Your task to perform on an android device: toggle airplane mode Image 0: 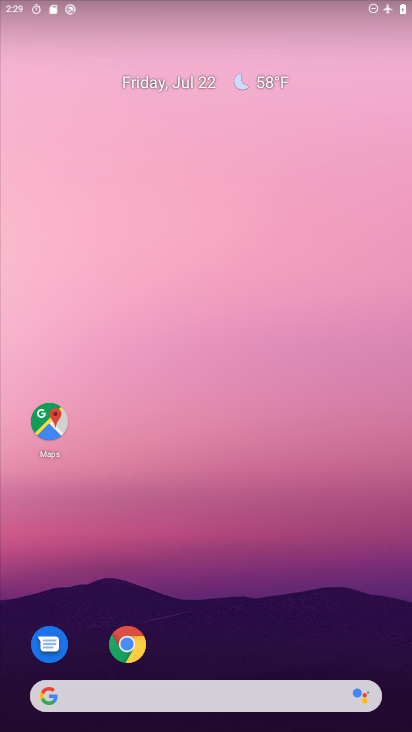
Step 0: drag from (253, 661) to (279, 206)
Your task to perform on an android device: toggle airplane mode Image 1: 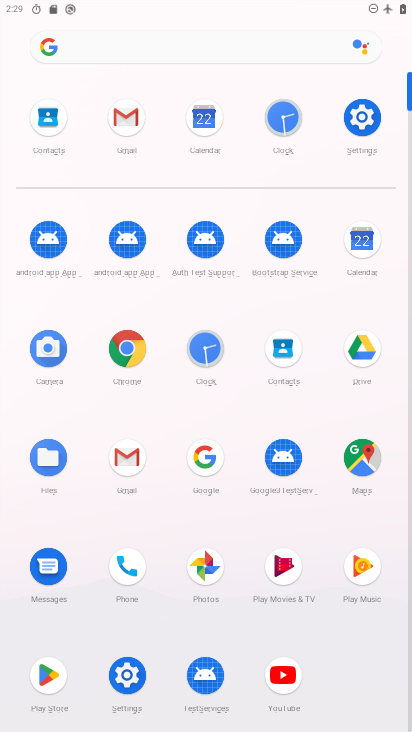
Step 1: click (359, 140)
Your task to perform on an android device: toggle airplane mode Image 2: 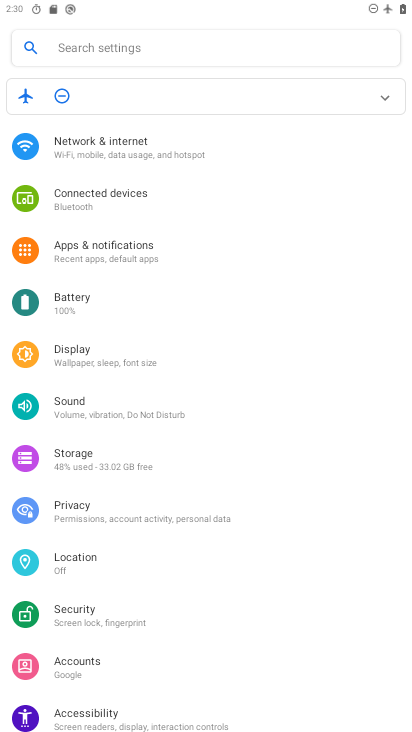
Step 2: click (130, 159)
Your task to perform on an android device: toggle airplane mode Image 3: 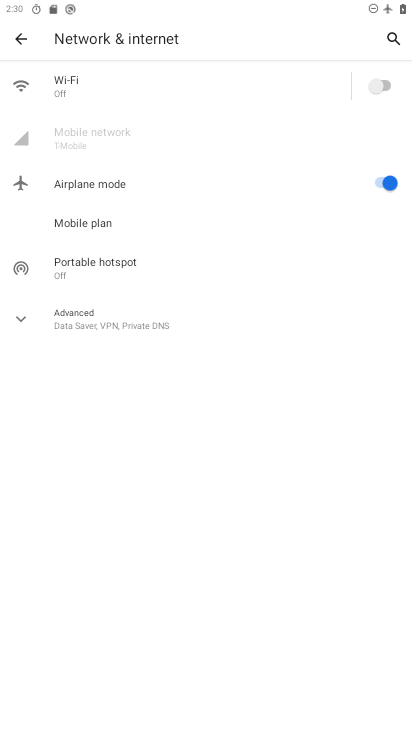
Step 3: click (375, 178)
Your task to perform on an android device: toggle airplane mode Image 4: 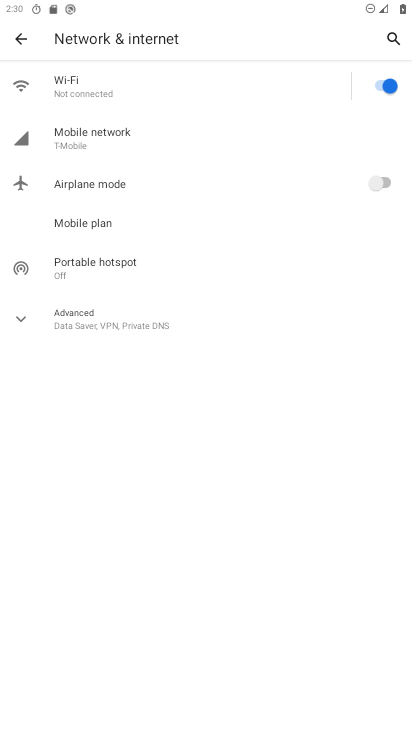
Step 4: task complete